Your task to perform on an android device: turn off priority inbox in the gmail app Image 0: 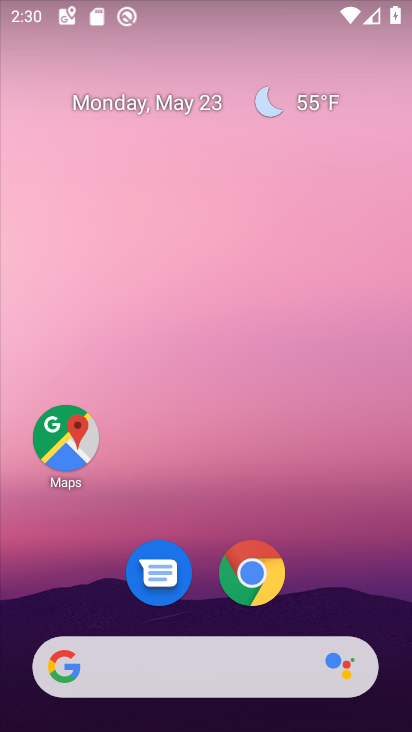
Step 0: drag from (344, 578) to (291, 24)
Your task to perform on an android device: turn off priority inbox in the gmail app Image 1: 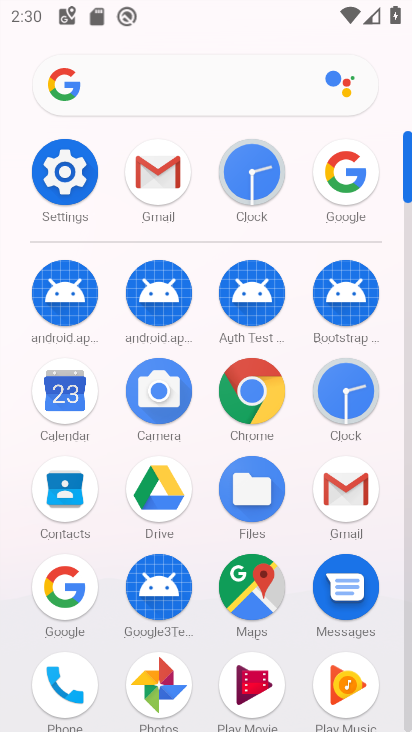
Step 1: click (159, 170)
Your task to perform on an android device: turn off priority inbox in the gmail app Image 2: 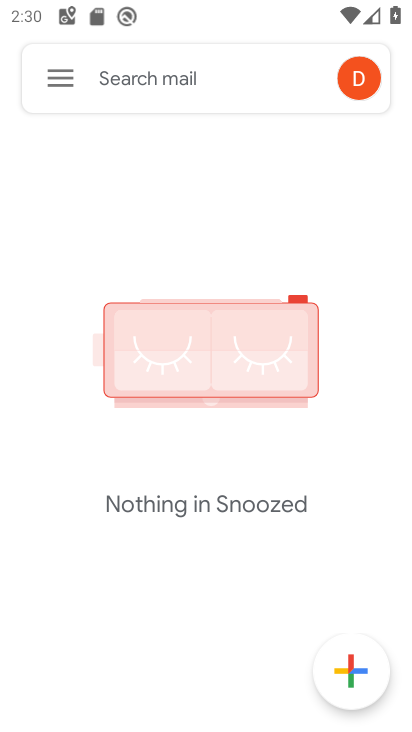
Step 2: click (66, 78)
Your task to perform on an android device: turn off priority inbox in the gmail app Image 3: 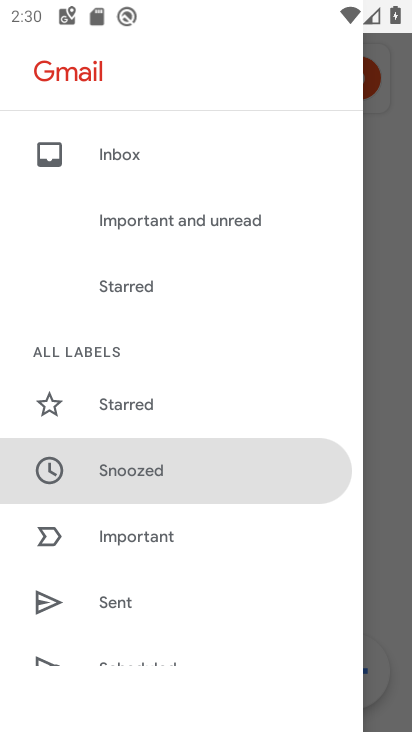
Step 3: drag from (216, 626) to (225, 197)
Your task to perform on an android device: turn off priority inbox in the gmail app Image 4: 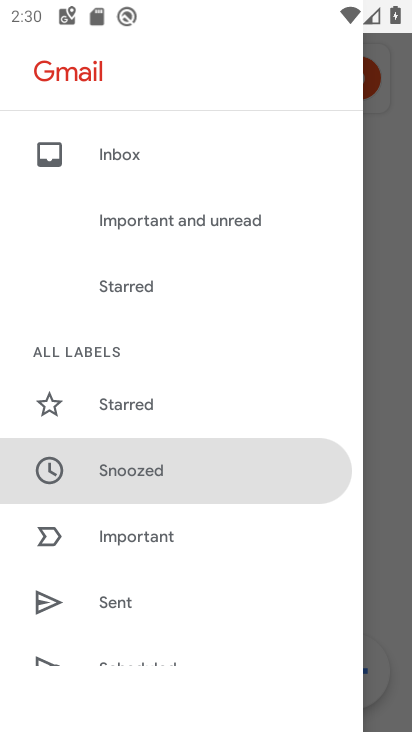
Step 4: drag from (207, 631) to (214, 166)
Your task to perform on an android device: turn off priority inbox in the gmail app Image 5: 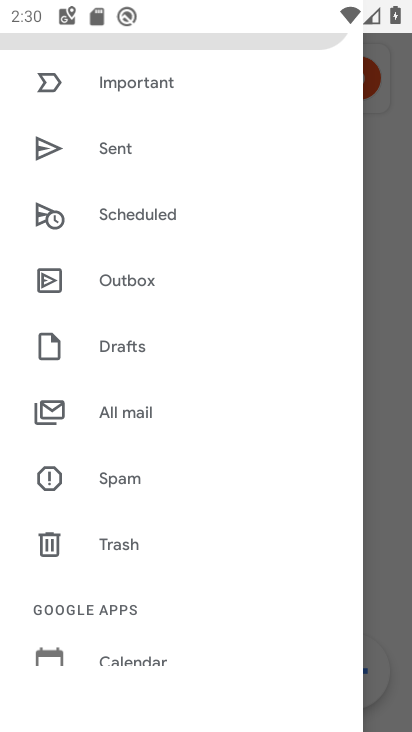
Step 5: drag from (225, 659) to (234, 330)
Your task to perform on an android device: turn off priority inbox in the gmail app Image 6: 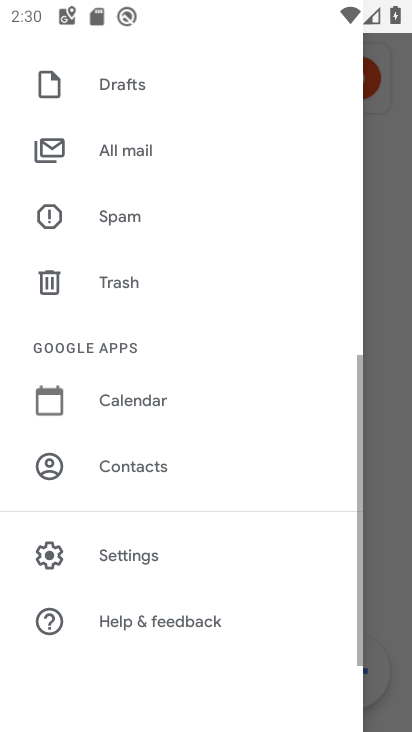
Step 6: click (156, 563)
Your task to perform on an android device: turn off priority inbox in the gmail app Image 7: 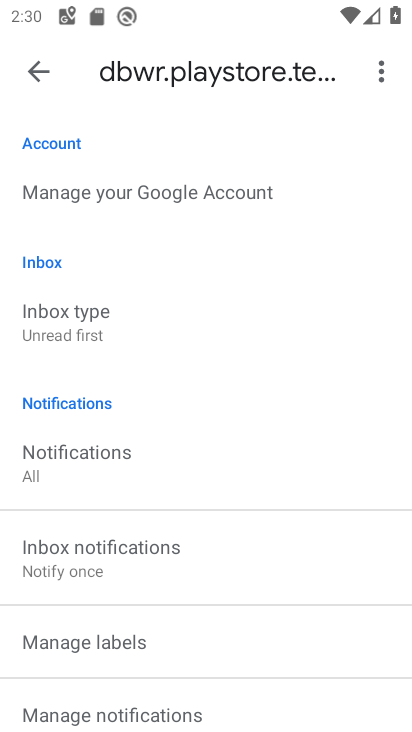
Step 7: click (60, 318)
Your task to perform on an android device: turn off priority inbox in the gmail app Image 8: 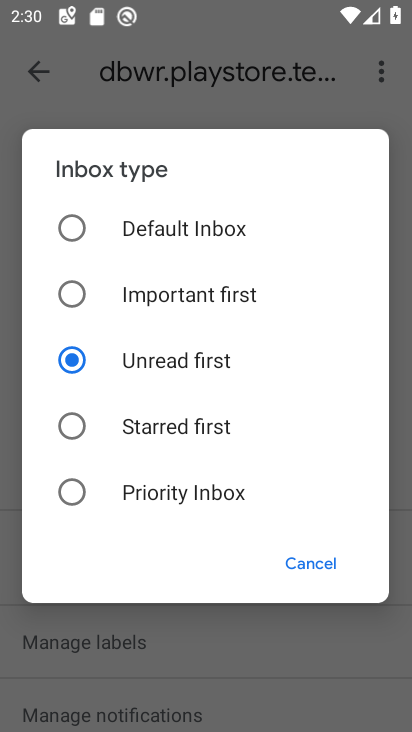
Step 8: click (74, 227)
Your task to perform on an android device: turn off priority inbox in the gmail app Image 9: 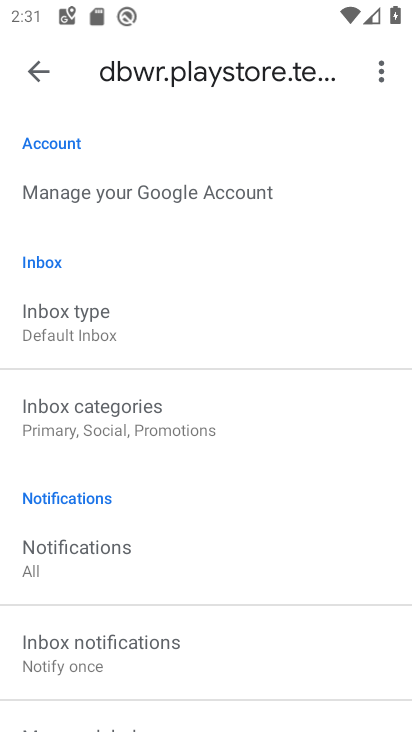
Step 9: task complete